Your task to perform on an android device: Check the weather Image 0: 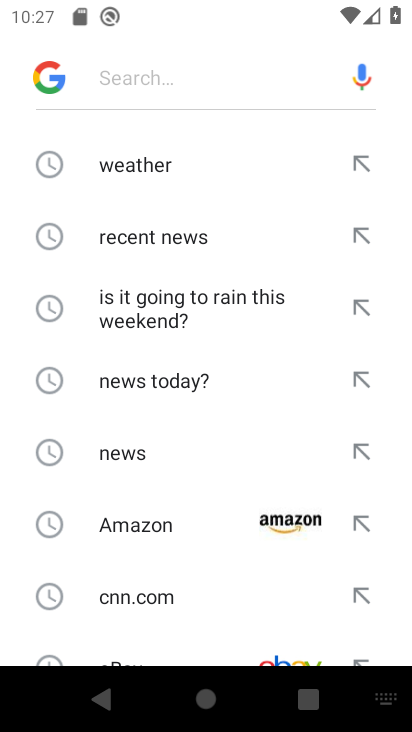
Step 0: press home button
Your task to perform on an android device: Check the weather Image 1: 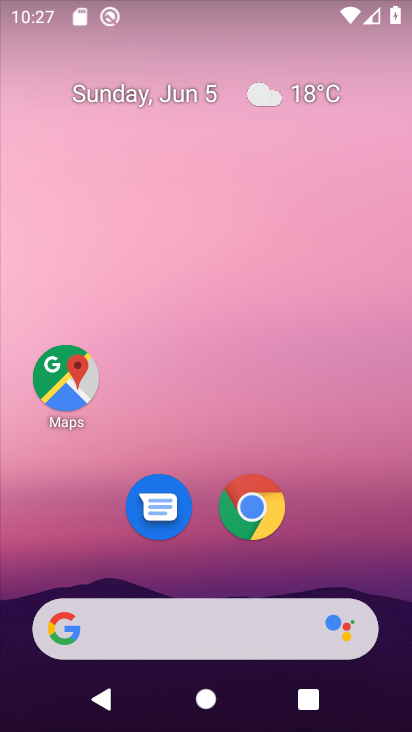
Step 1: click (264, 107)
Your task to perform on an android device: Check the weather Image 2: 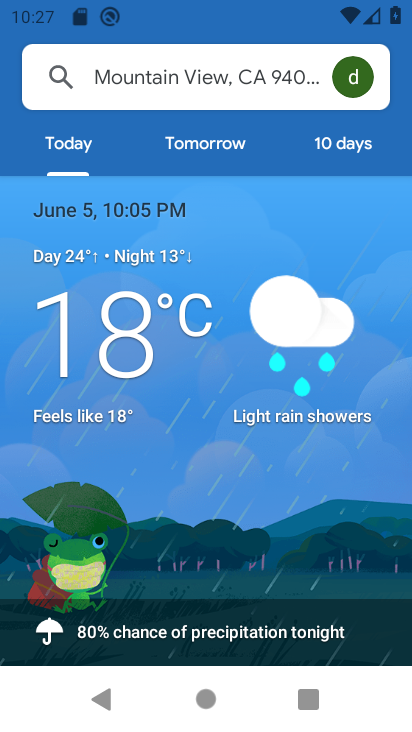
Step 2: task complete